Your task to perform on an android device: Turn on the flashlight Image 0: 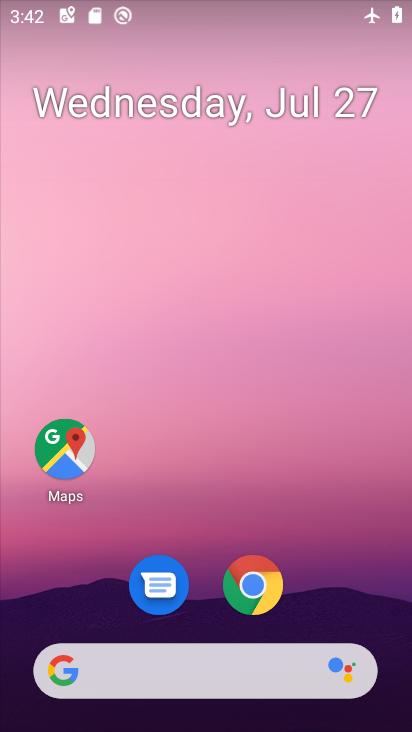
Step 0: drag from (304, 534) to (264, 14)
Your task to perform on an android device: Turn on the flashlight Image 1: 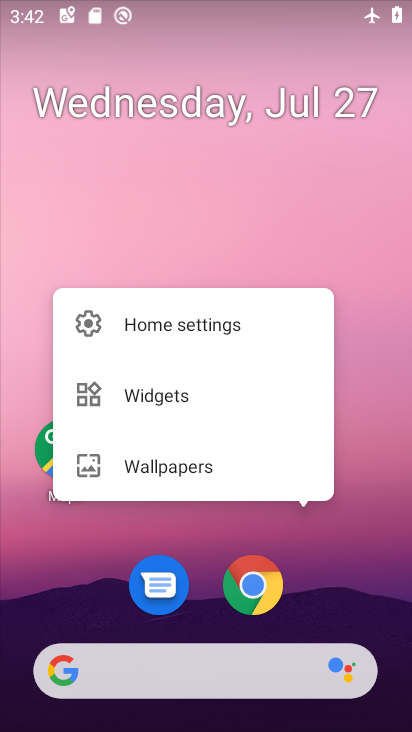
Step 1: click (320, 537)
Your task to perform on an android device: Turn on the flashlight Image 2: 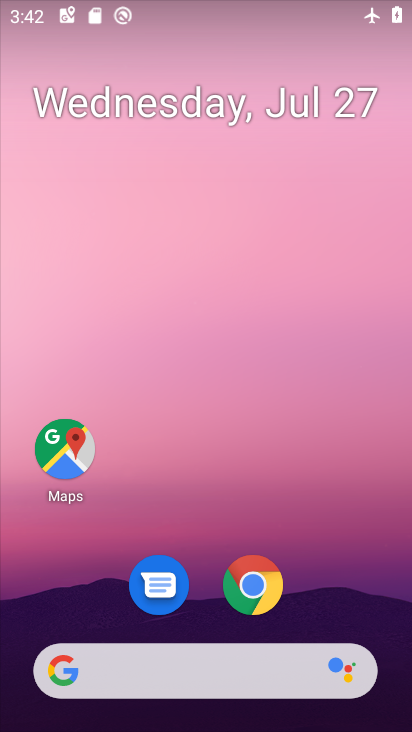
Step 2: drag from (326, 585) to (354, 21)
Your task to perform on an android device: Turn on the flashlight Image 3: 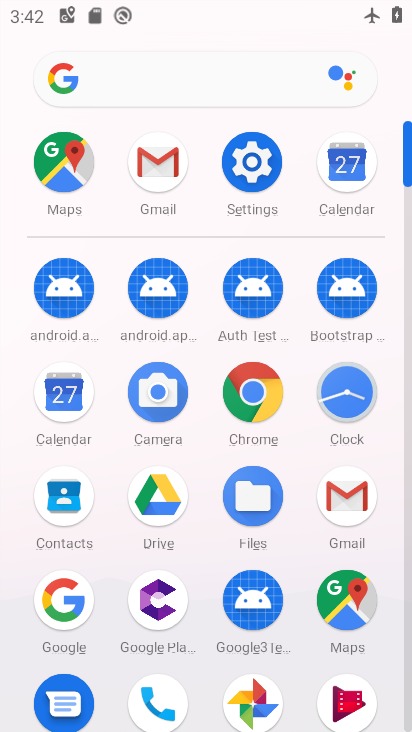
Step 3: click (261, 170)
Your task to perform on an android device: Turn on the flashlight Image 4: 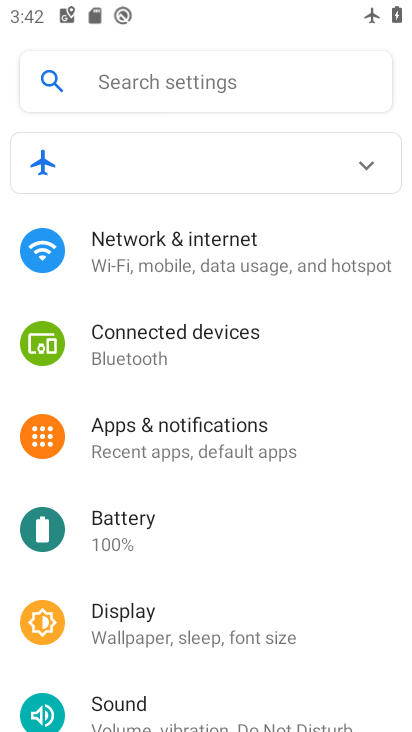
Step 4: click (246, 74)
Your task to perform on an android device: Turn on the flashlight Image 5: 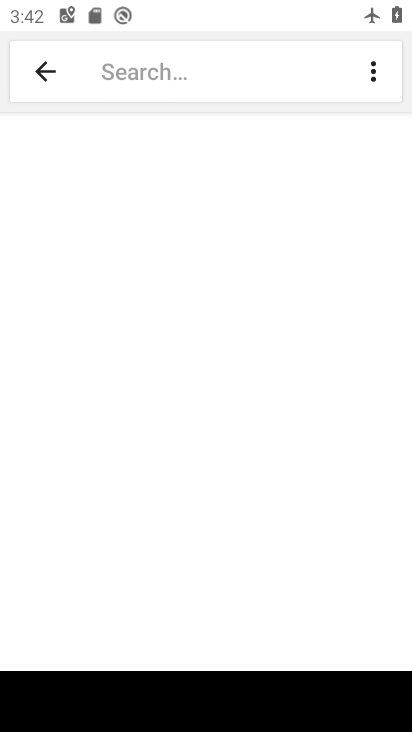
Step 5: type "Flashlight"
Your task to perform on an android device: Turn on the flashlight Image 6: 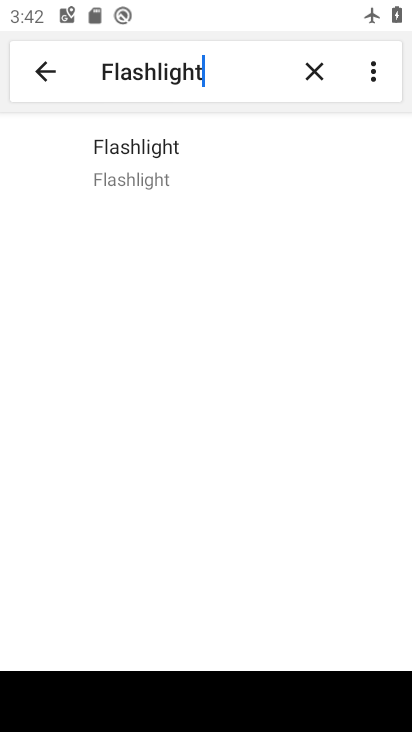
Step 6: click (154, 159)
Your task to perform on an android device: Turn on the flashlight Image 7: 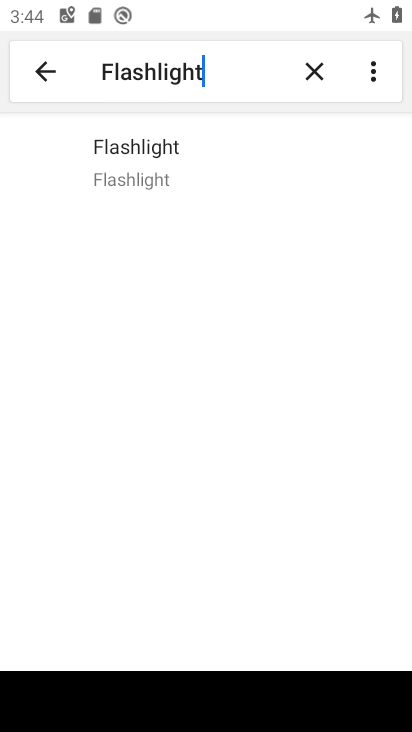
Step 7: click (157, 171)
Your task to perform on an android device: Turn on the flashlight Image 8: 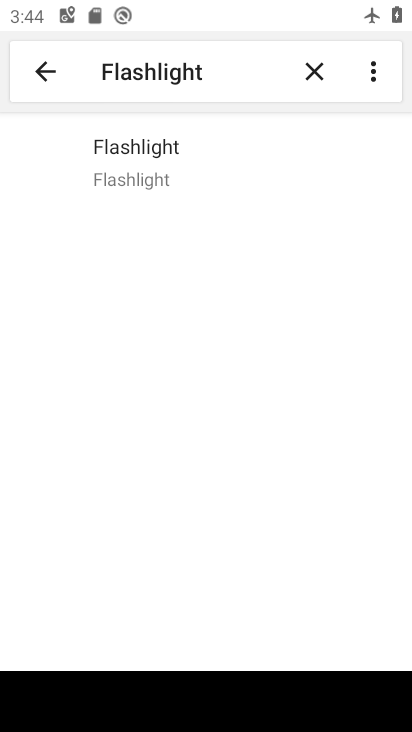
Step 8: task complete